Your task to perform on an android device: toggle sleep mode Image 0: 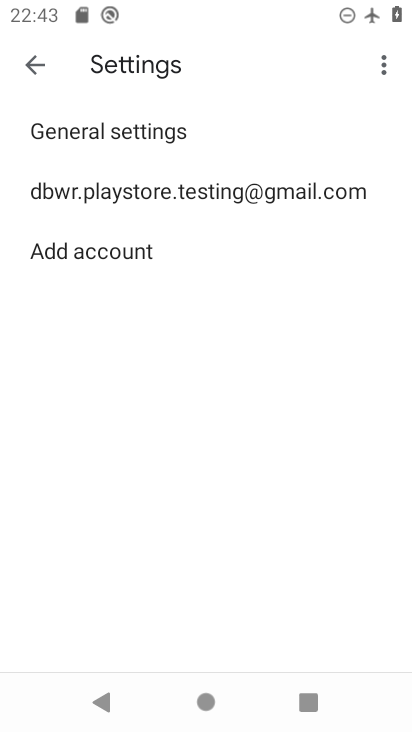
Step 0: press home button
Your task to perform on an android device: toggle sleep mode Image 1: 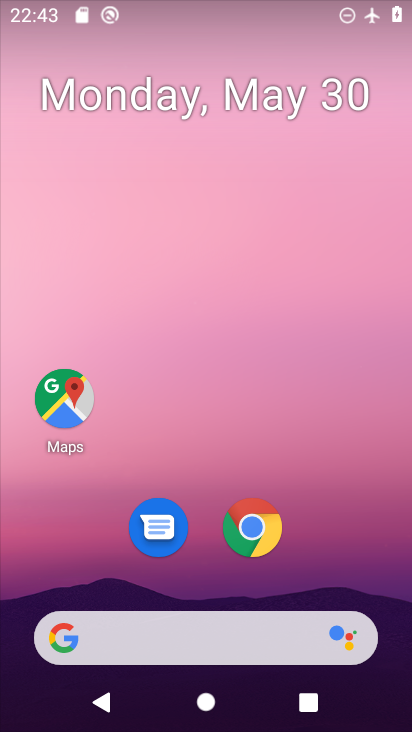
Step 1: drag from (219, 557) to (206, 215)
Your task to perform on an android device: toggle sleep mode Image 2: 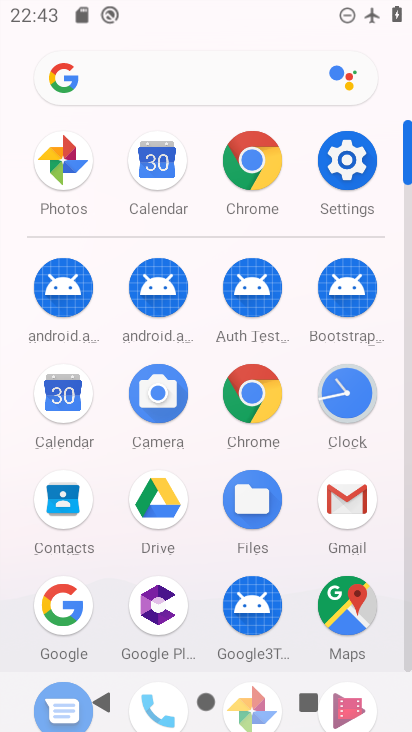
Step 2: click (343, 153)
Your task to perform on an android device: toggle sleep mode Image 3: 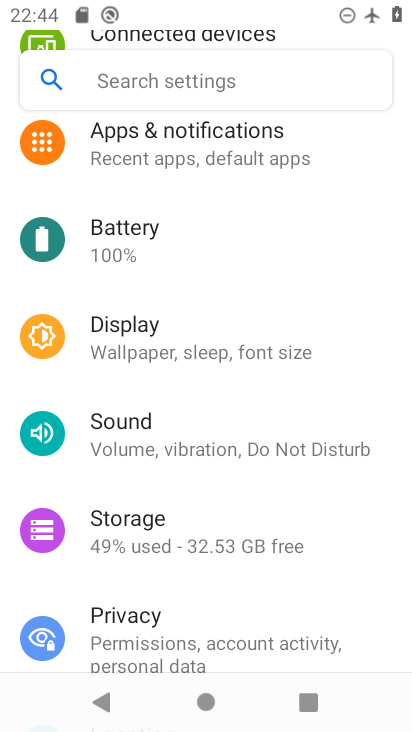
Step 3: task complete